Your task to perform on an android device: read, delete, or share a saved page in the chrome app Image 0: 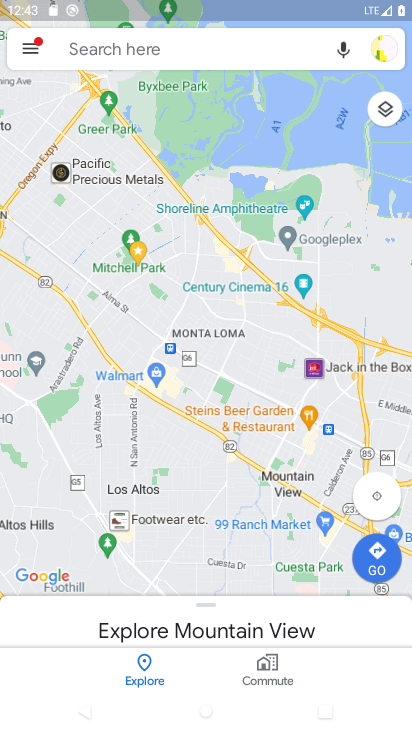
Step 0: press home button
Your task to perform on an android device: read, delete, or share a saved page in the chrome app Image 1: 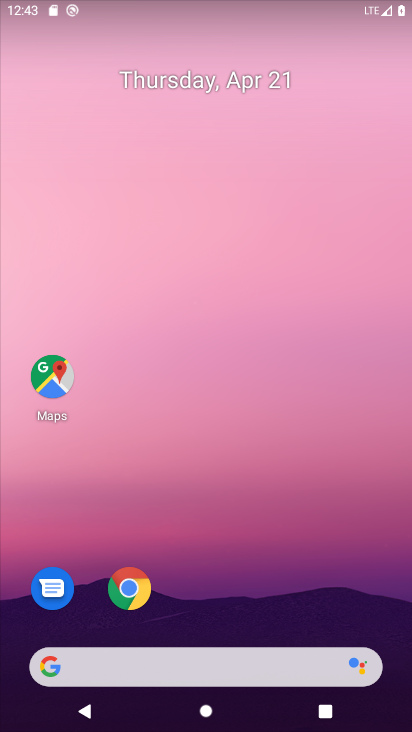
Step 1: click (127, 582)
Your task to perform on an android device: read, delete, or share a saved page in the chrome app Image 2: 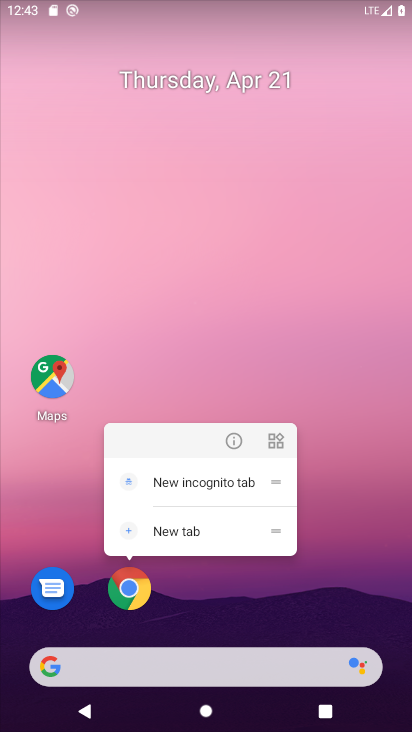
Step 2: click (124, 584)
Your task to perform on an android device: read, delete, or share a saved page in the chrome app Image 3: 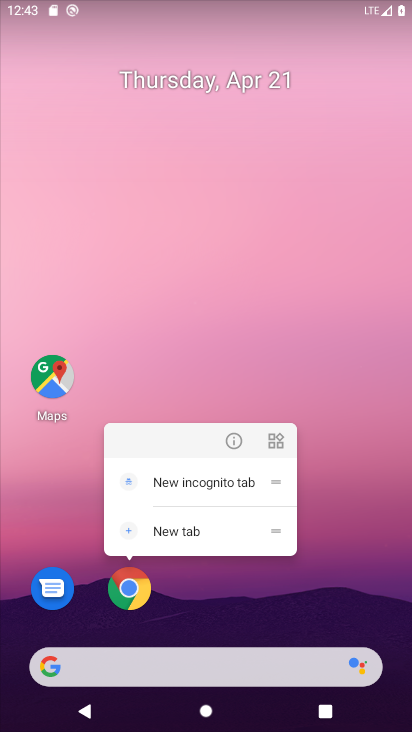
Step 3: click (246, 590)
Your task to perform on an android device: read, delete, or share a saved page in the chrome app Image 4: 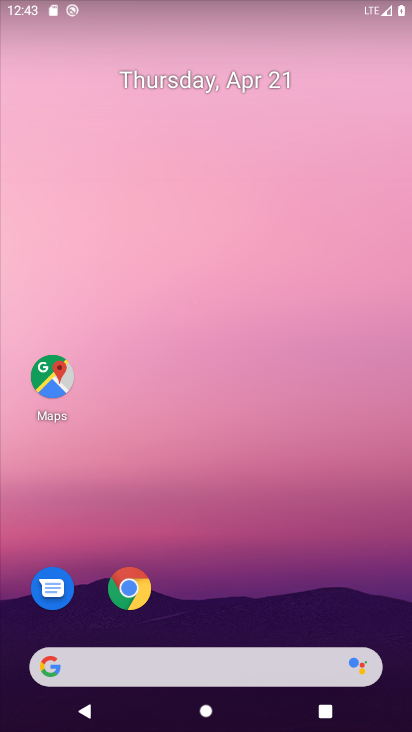
Step 4: click (223, 306)
Your task to perform on an android device: read, delete, or share a saved page in the chrome app Image 5: 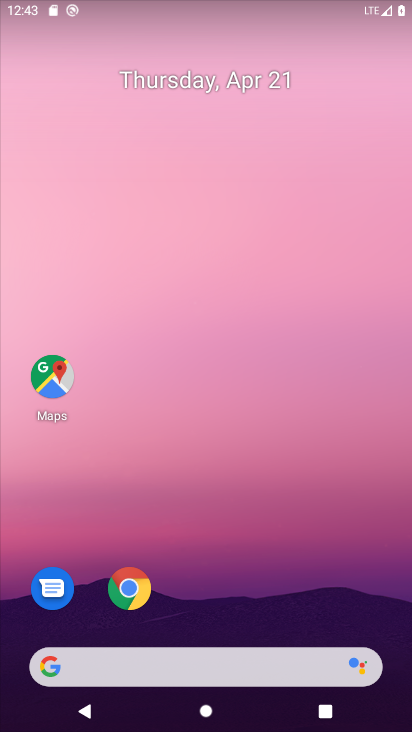
Step 5: click (129, 581)
Your task to perform on an android device: read, delete, or share a saved page in the chrome app Image 6: 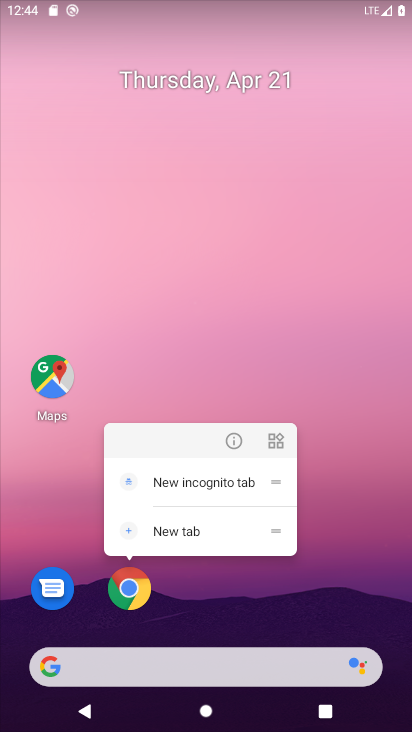
Step 6: click (187, 334)
Your task to perform on an android device: read, delete, or share a saved page in the chrome app Image 7: 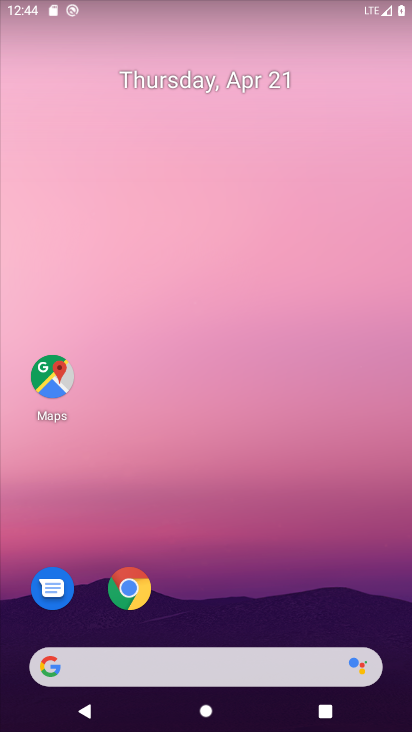
Step 7: click (287, 289)
Your task to perform on an android device: read, delete, or share a saved page in the chrome app Image 8: 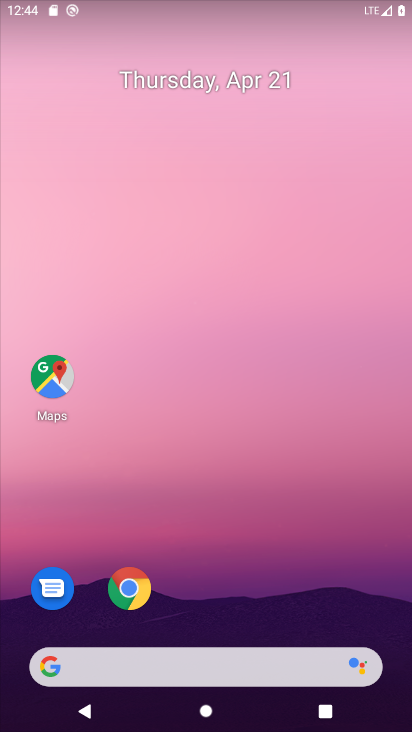
Step 8: click (124, 580)
Your task to perform on an android device: read, delete, or share a saved page in the chrome app Image 9: 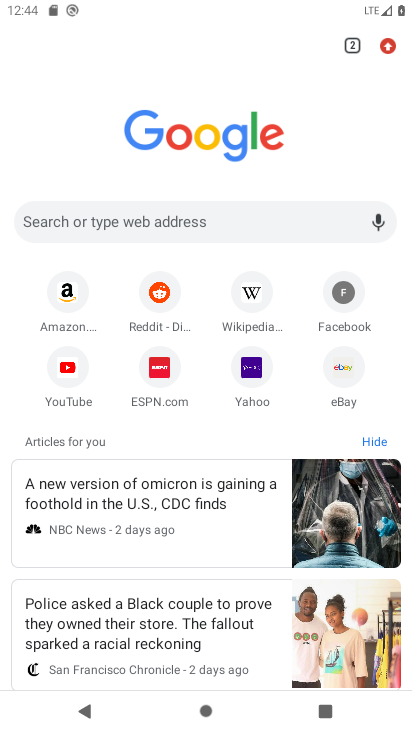
Step 9: click (388, 38)
Your task to perform on an android device: read, delete, or share a saved page in the chrome app Image 10: 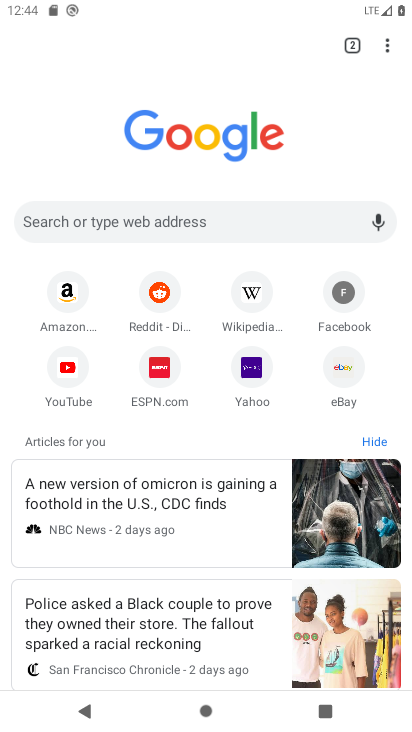
Step 10: click (385, 41)
Your task to perform on an android device: read, delete, or share a saved page in the chrome app Image 11: 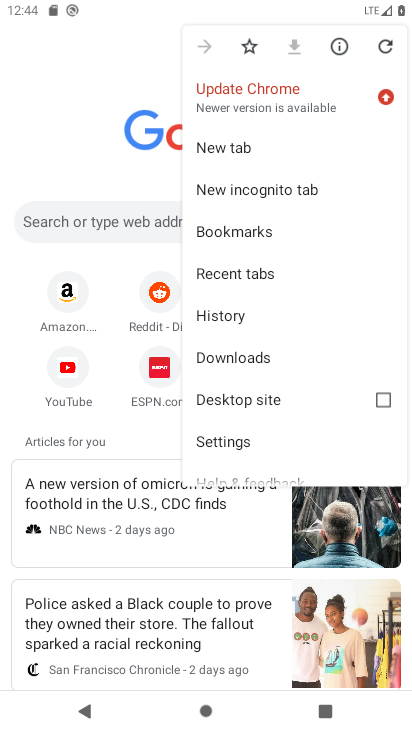
Step 11: click (276, 353)
Your task to perform on an android device: read, delete, or share a saved page in the chrome app Image 12: 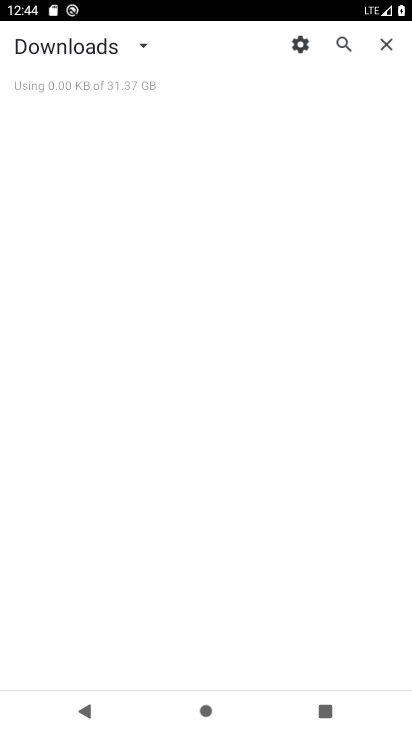
Step 12: task complete